Your task to perform on an android device: Open calendar and show me the fourth week of next month Image 0: 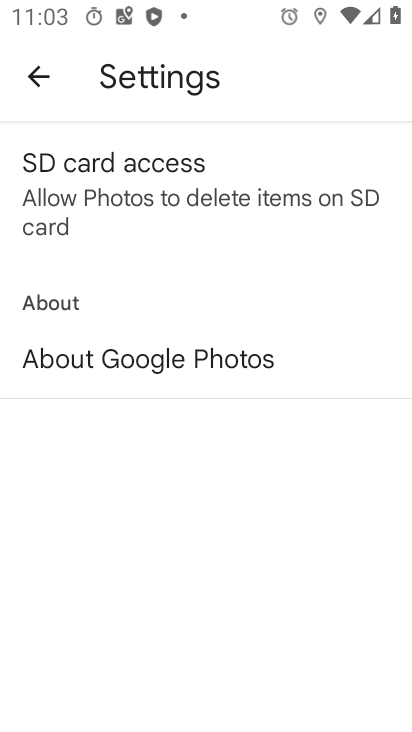
Step 0: press back button
Your task to perform on an android device: Open calendar and show me the fourth week of next month Image 1: 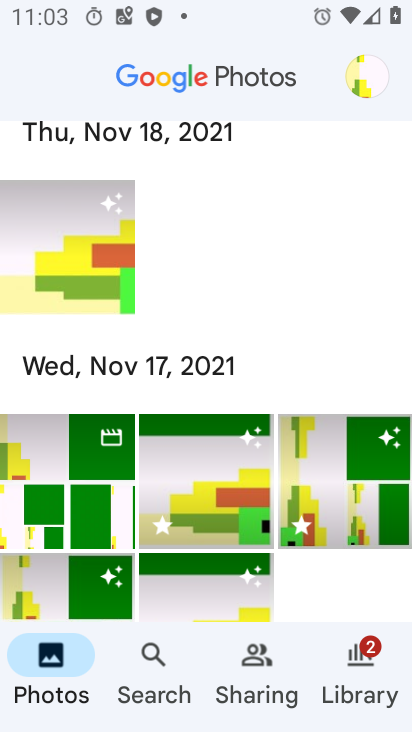
Step 1: press back button
Your task to perform on an android device: Open calendar and show me the fourth week of next month Image 2: 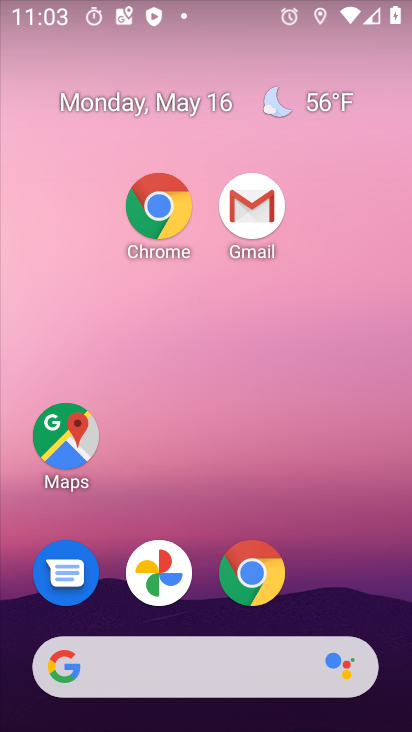
Step 2: press home button
Your task to perform on an android device: Open calendar and show me the fourth week of next month Image 3: 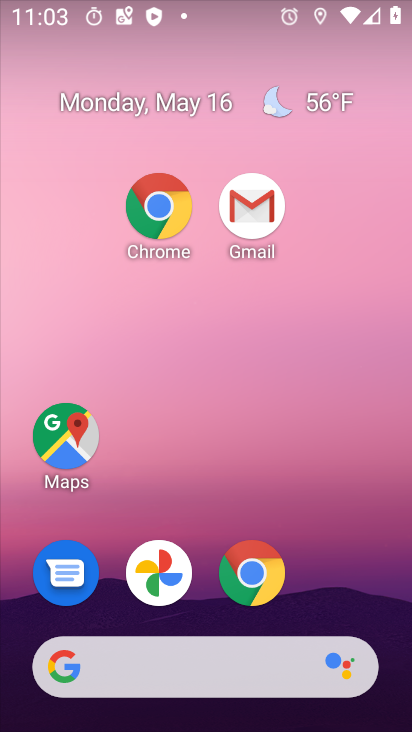
Step 3: drag from (317, 647) to (130, 34)
Your task to perform on an android device: Open calendar and show me the fourth week of next month Image 4: 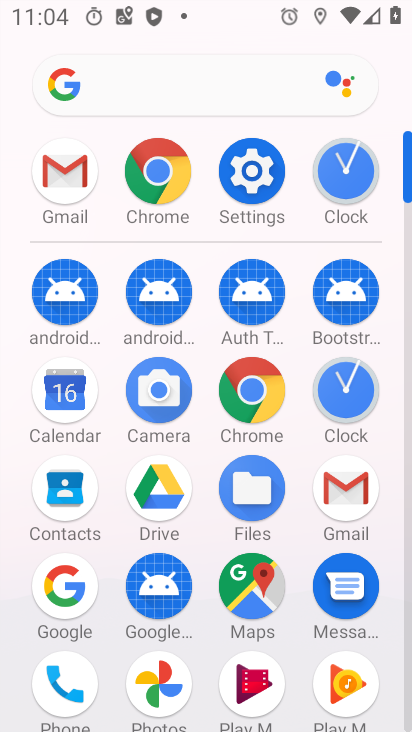
Step 4: click (63, 375)
Your task to perform on an android device: Open calendar and show me the fourth week of next month Image 5: 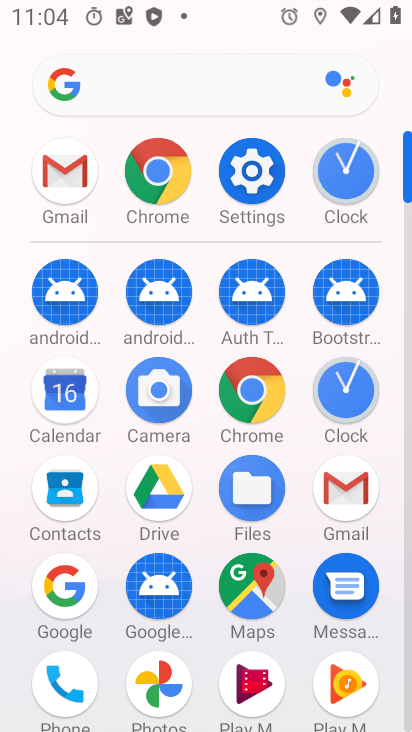
Step 5: click (64, 383)
Your task to perform on an android device: Open calendar and show me the fourth week of next month Image 6: 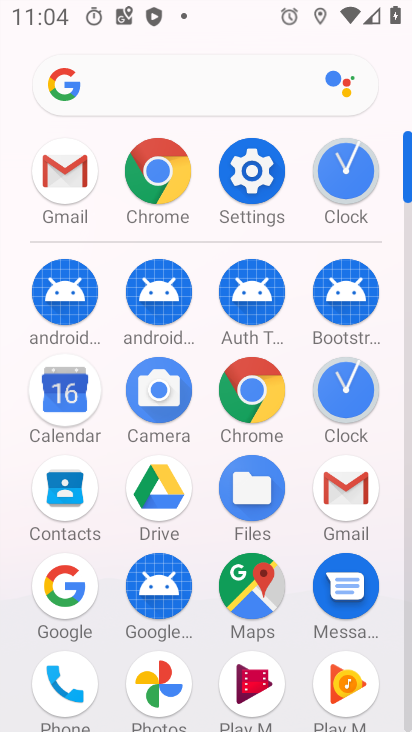
Step 6: click (64, 383)
Your task to perform on an android device: Open calendar and show me the fourth week of next month Image 7: 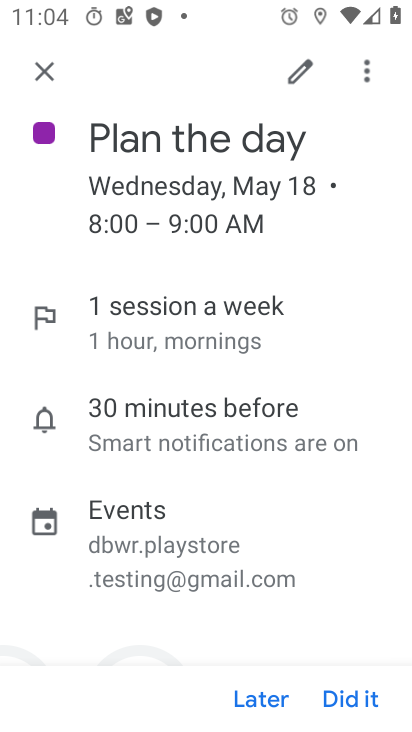
Step 7: click (44, 71)
Your task to perform on an android device: Open calendar and show me the fourth week of next month Image 8: 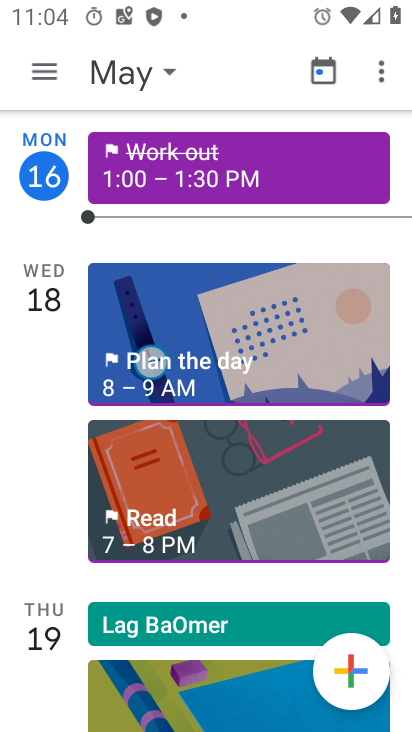
Step 8: click (165, 70)
Your task to perform on an android device: Open calendar and show me the fourth week of next month Image 9: 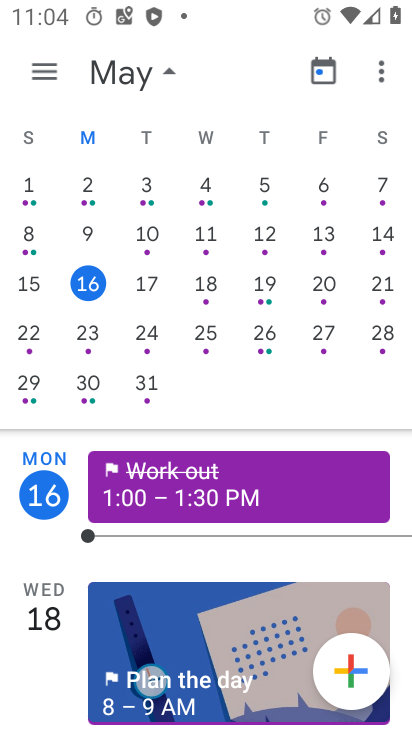
Step 9: drag from (296, 238) to (14, 329)
Your task to perform on an android device: Open calendar and show me the fourth week of next month Image 10: 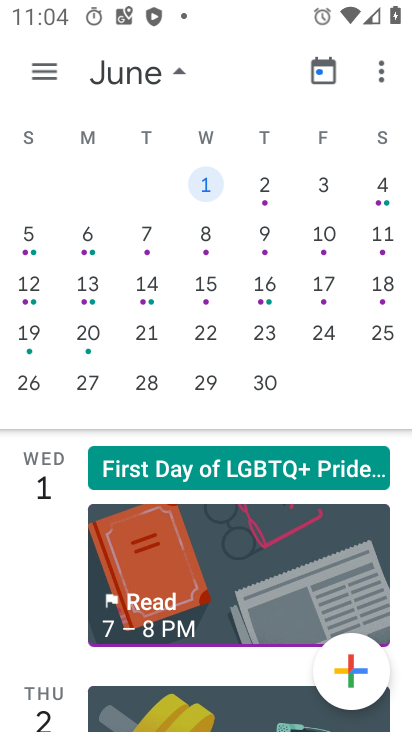
Step 10: drag from (241, 259) to (172, 276)
Your task to perform on an android device: Open calendar and show me the fourth week of next month Image 11: 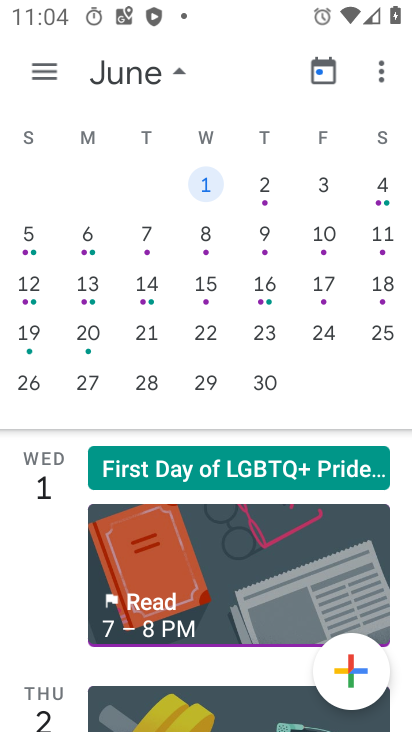
Step 11: drag from (273, 243) to (33, 323)
Your task to perform on an android device: Open calendar and show me the fourth week of next month Image 12: 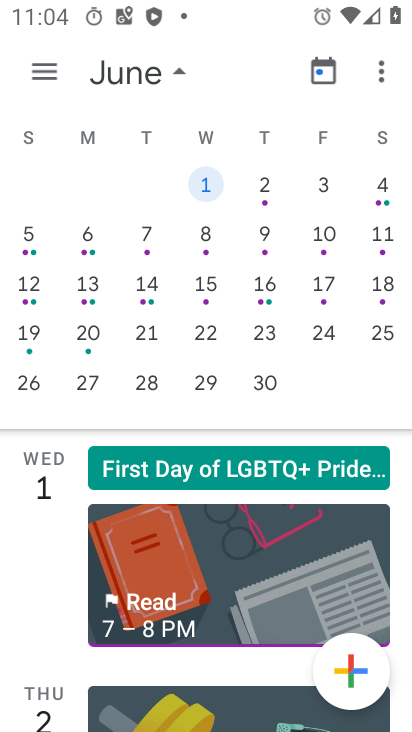
Step 12: click (210, 333)
Your task to perform on an android device: Open calendar and show me the fourth week of next month Image 13: 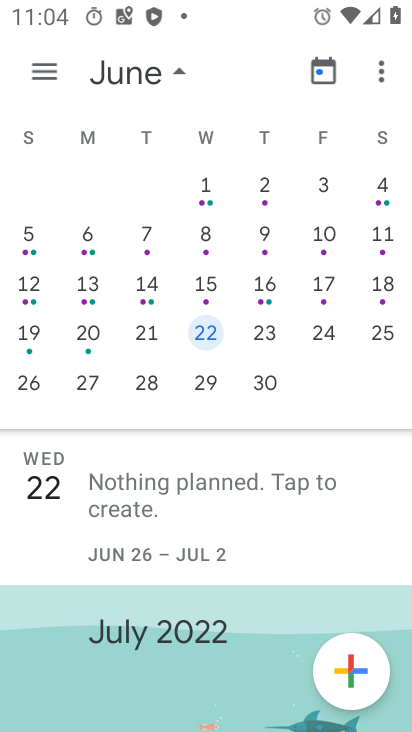
Step 13: click (209, 331)
Your task to perform on an android device: Open calendar and show me the fourth week of next month Image 14: 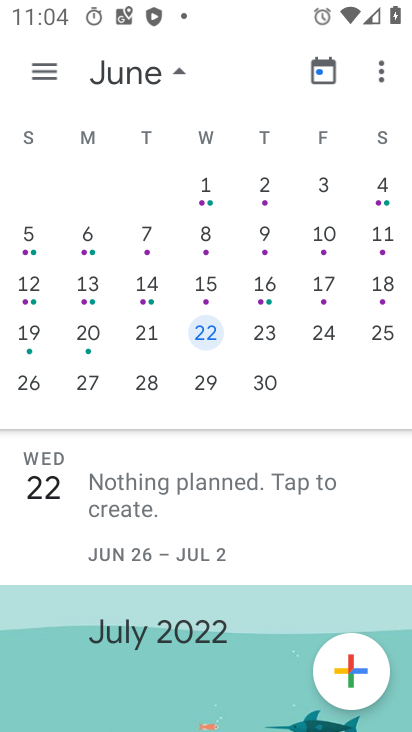
Step 14: click (209, 331)
Your task to perform on an android device: Open calendar and show me the fourth week of next month Image 15: 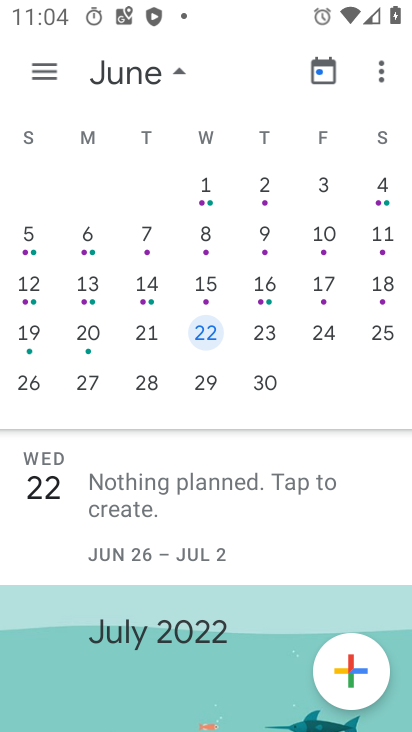
Step 15: task complete